Your task to perform on an android device: toggle improve location accuracy Image 0: 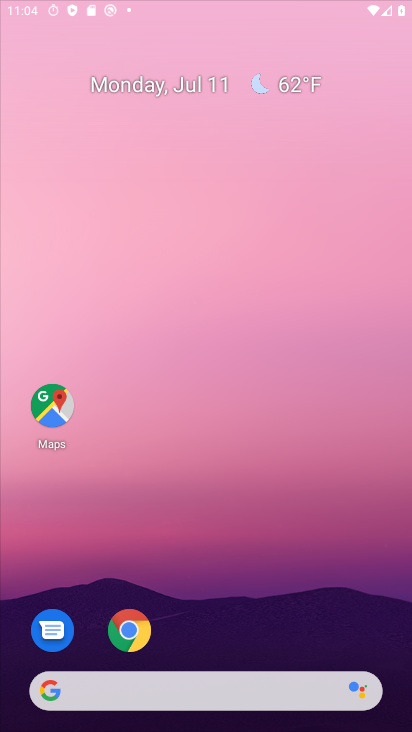
Step 0: drag from (227, 294) to (256, 67)
Your task to perform on an android device: toggle improve location accuracy Image 1: 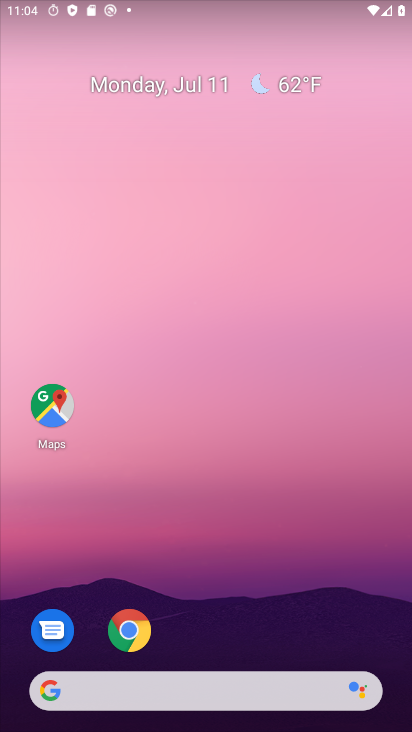
Step 1: drag from (282, 668) to (411, 50)
Your task to perform on an android device: toggle improve location accuracy Image 2: 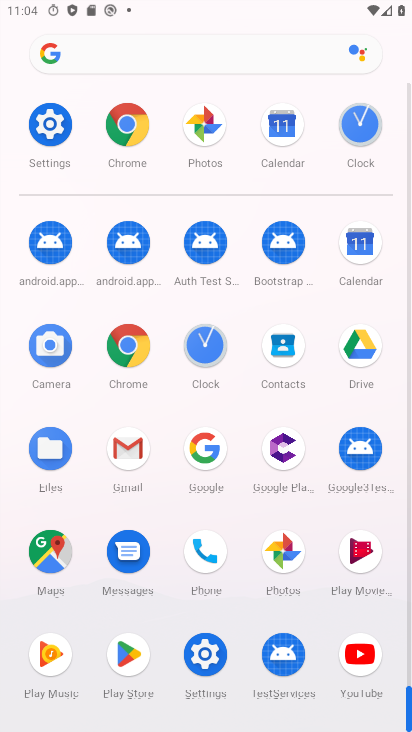
Step 2: click (37, 124)
Your task to perform on an android device: toggle improve location accuracy Image 3: 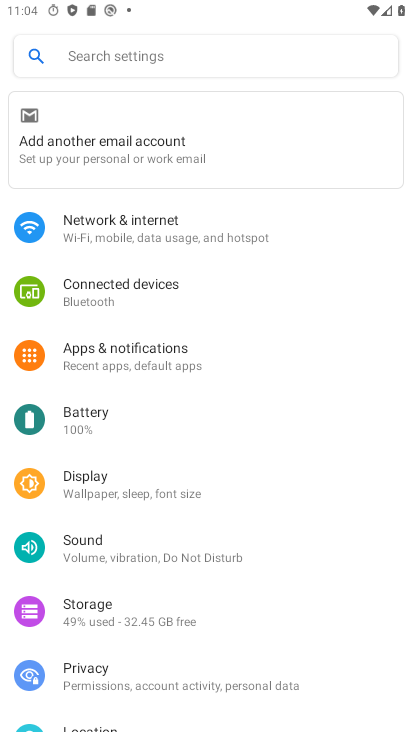
Step 3: drag from (141, 680) to (183, 473)
Your task to perform on an android device: toggle improve location accuracy Image 4: 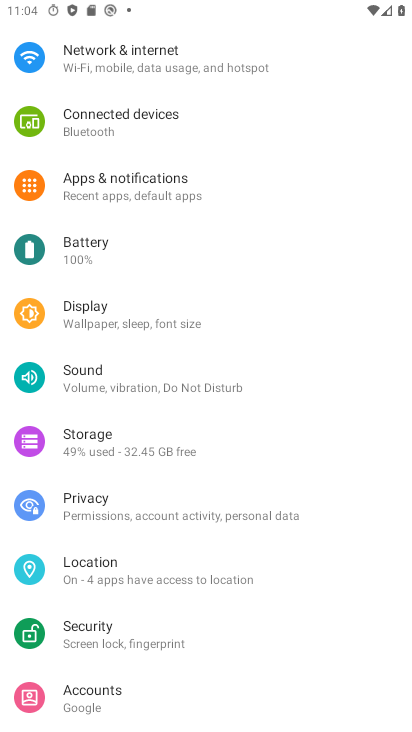
Step 4: click (141, 570)
Your task to perform on an android device: toggle improve location accuracy Image 5: 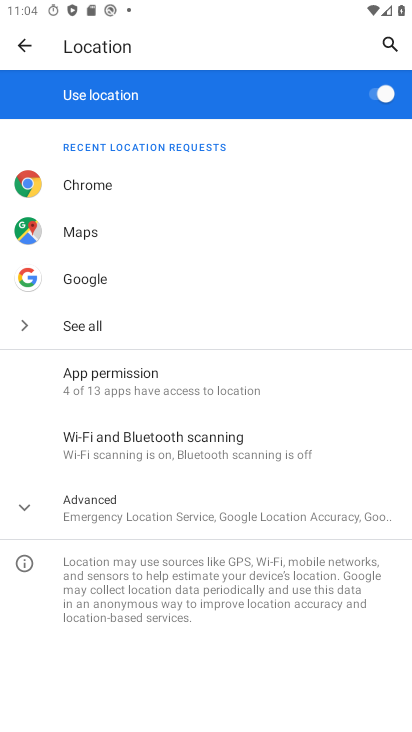
Step 5: click (125, 514)
Your task to perform on an android device: toggle improve location accuracy Image 6: 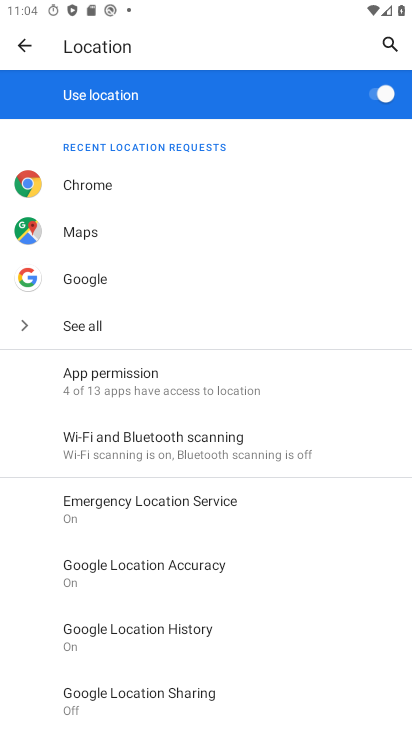
Step 6: drag from (190, 686) to (237, 479)
Your task to perform on an android device: toggle improve location accuracy Image 7: 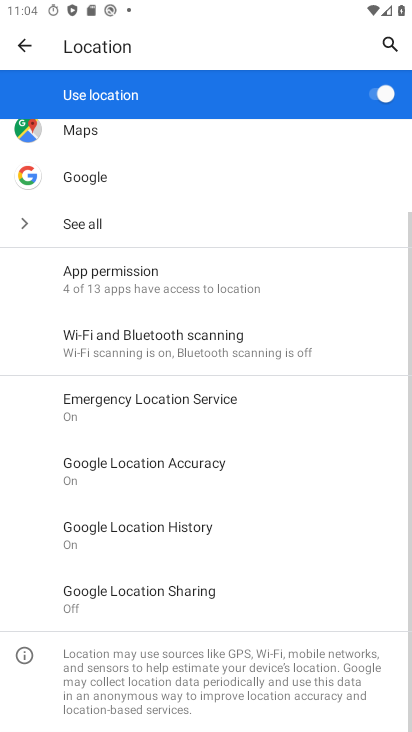
Step 7: click (187, 462)
Your task to perform on an android device: toggle improve location accuracy Image 8: 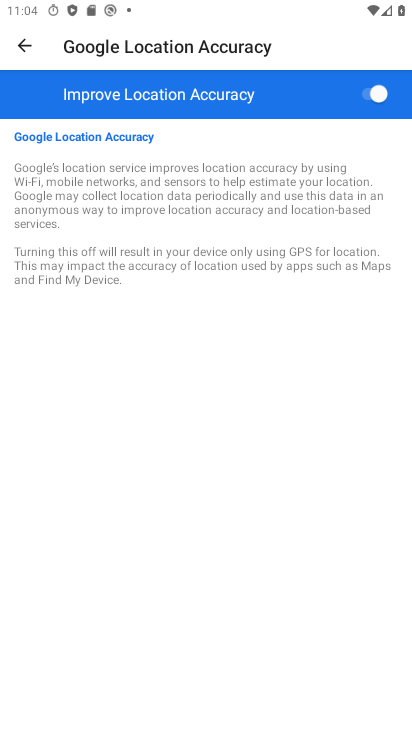
Step 8: click (363, 96)
Your task to perform on an android device: toggle improve location accuracy Image 9: 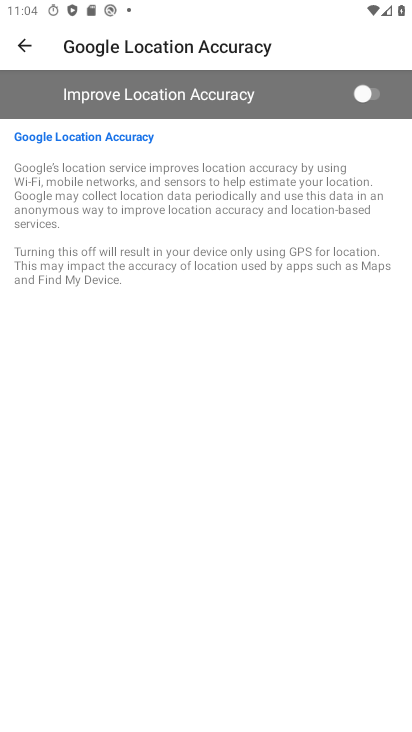
Step 9: task complete